Your task to perform on an android device: What is the recent news? Image 0: 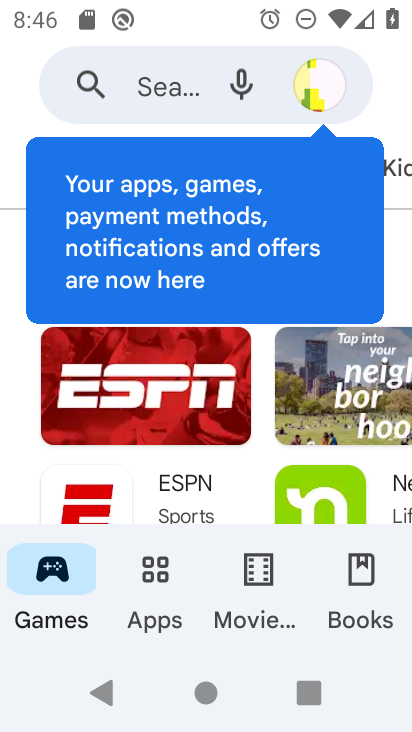
Step 0: press home button
Your task to perform on an android device: What is the recent news? Image 1: 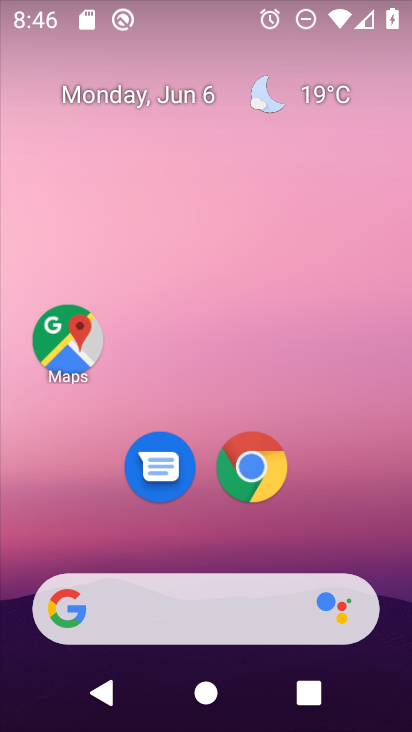
Step 1: task complete